Your task to perform on an android device: change your default location settings in chrome Image 0: 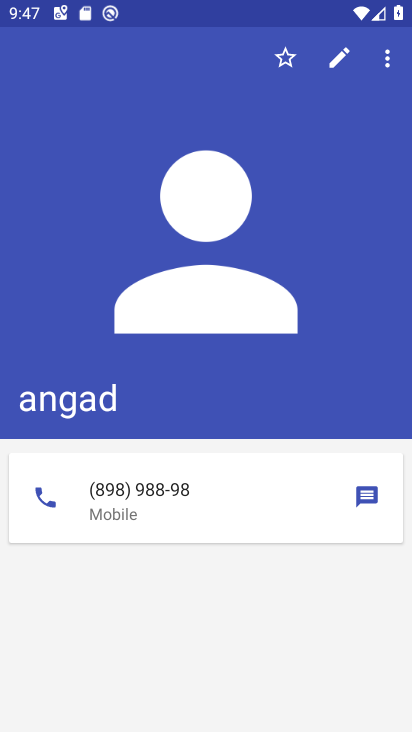
Step 0: press home button
Your task to perform on an android device: change your default location settings in chrome Image 1: 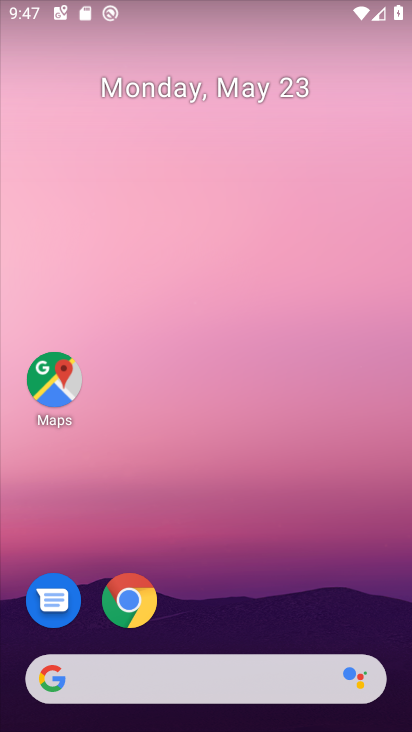
Step 1: click (131, 601)
Your task to perform on an android device: change your default location settings in chrome Image 2: 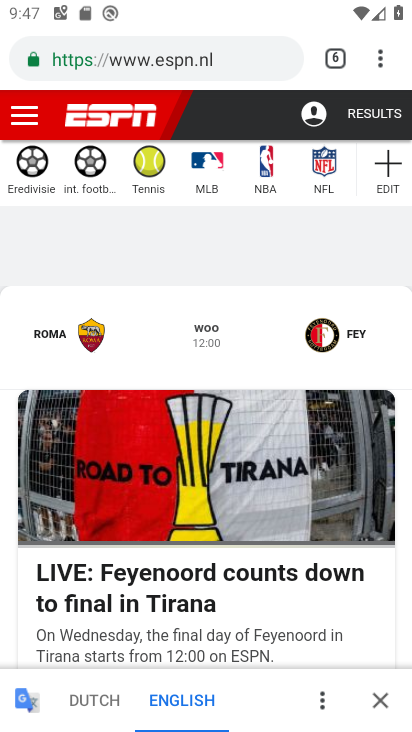
Step 2: click (381, 64)
Your task to perform on an android device: change your default location settings in chrome Image 3: 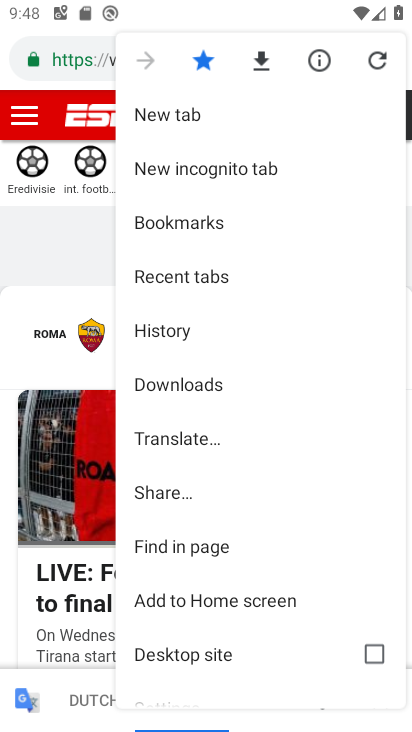
Step 3: drag from (184, 627) to (178, 325)
Your task to perform on an android device: change your default location settings in chrome Image 4: 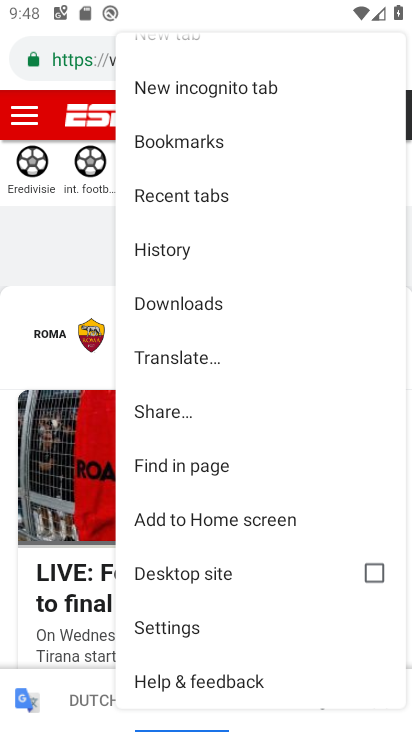
Step 4: click (184, 624)
Your task to perform on an android device: change your default location settings in chrome Image 5: 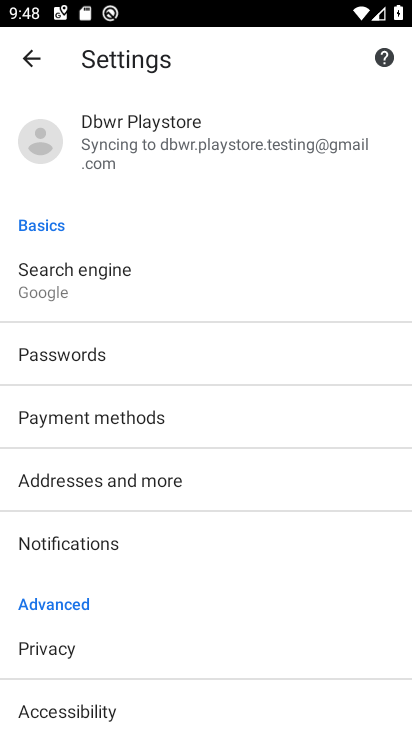
Step 5: drag from (116, 663) to (134, 294)
Your task to perform on an android device: change your default location settings in chrome Image 6: 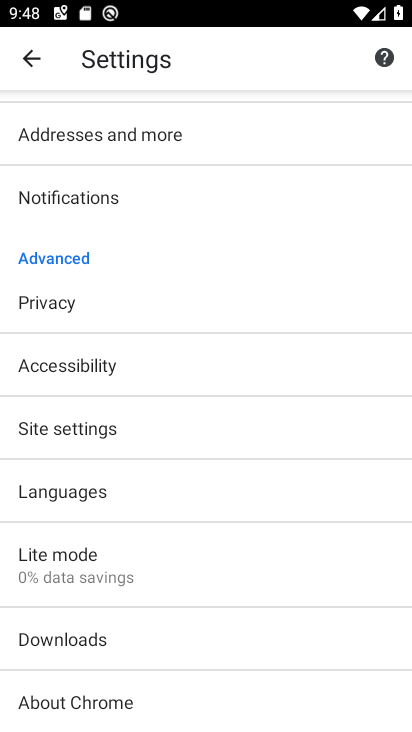
Step 6: drag from (106, 646) to (113, 233)
Your task to perform on an android device: change your default location settings in chrome Image 7: 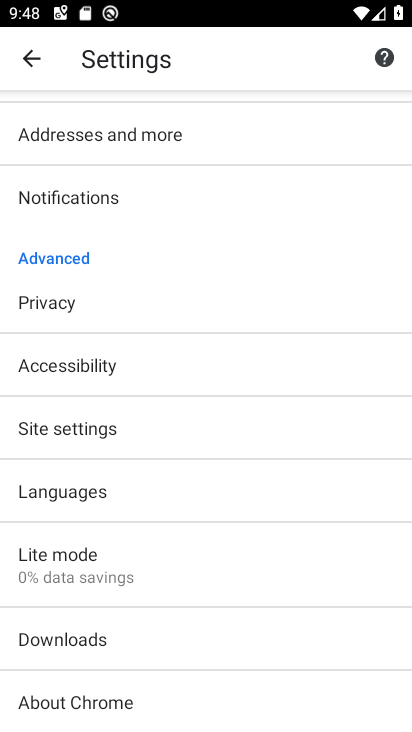
Step 7: drag from (203, 176) to (194, 522)
Your task to perform on an android device: change your default location settings in chrome Image 8: 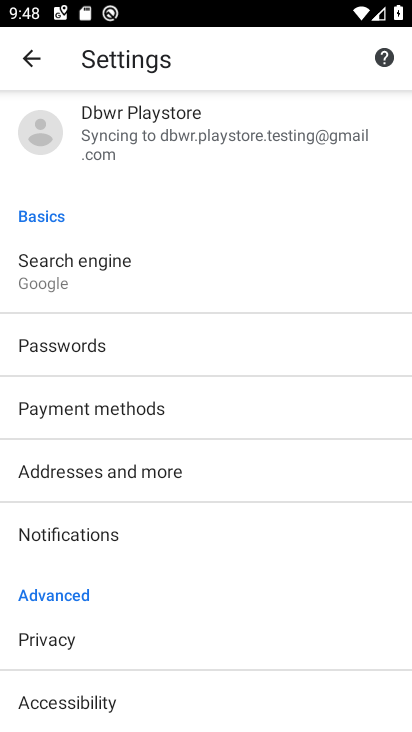
Step 8: drag from (162, 656) to (166, 234)
Your task to perform on an android device: change your default location settings in chrome Image 9: 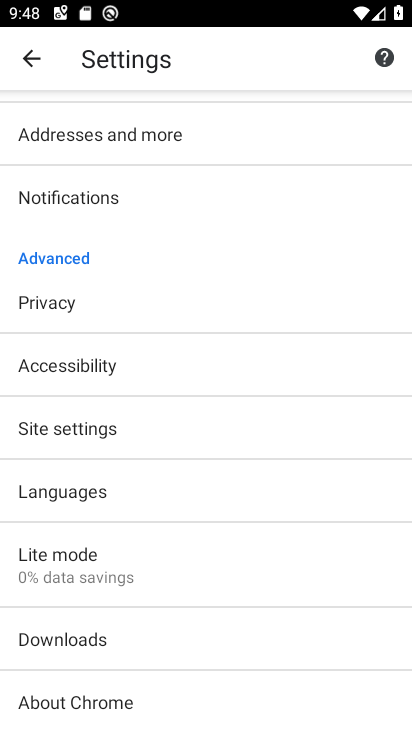
Step 9: drag from (107, 660) to (133, 260)
Your task to perform on an android device: change your default location settings in chrome Image 10: 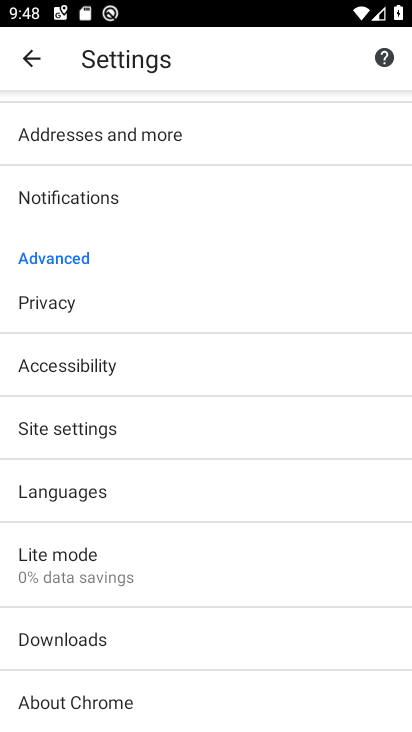
Step 10: click (66, 426)
Your task to perform on an android device: change your default location settings in chrome Image 11: 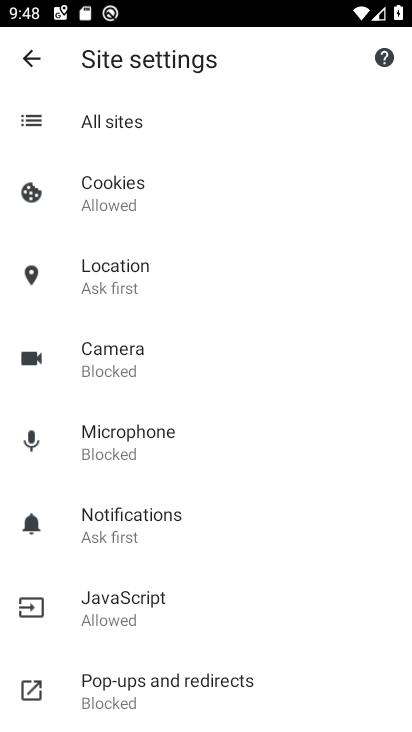
Step 11: click (108, 274)
Your task to perform on an android device: change your default location settings in chrome Image 12: 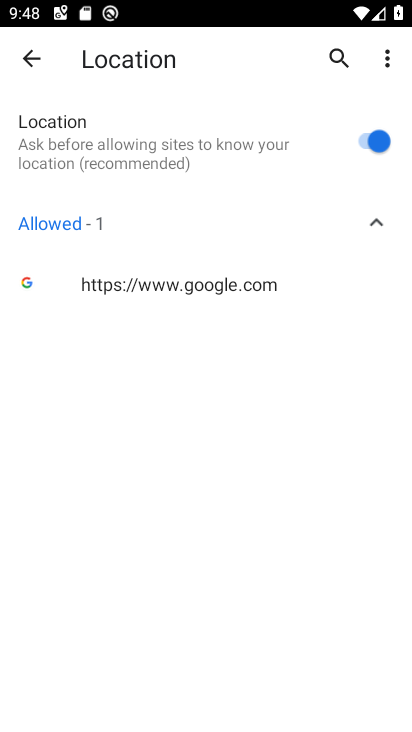
Step 12: click (364, 139)
Your task to perform on an android device: change your default location settings in chrome Image 13: 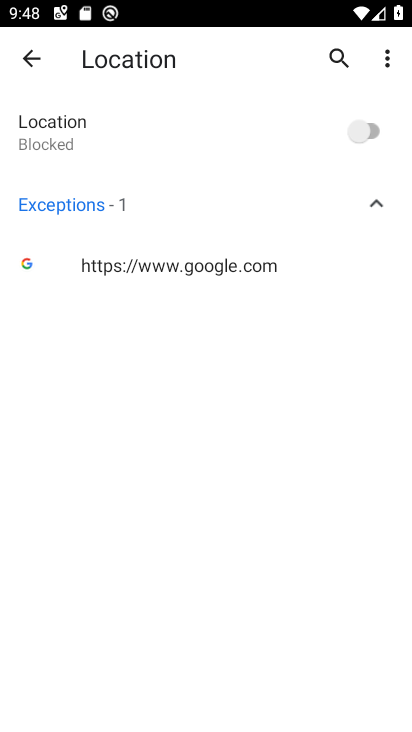
Step 13: task complete